Your task to perform on an android device: delete location history Image 0: 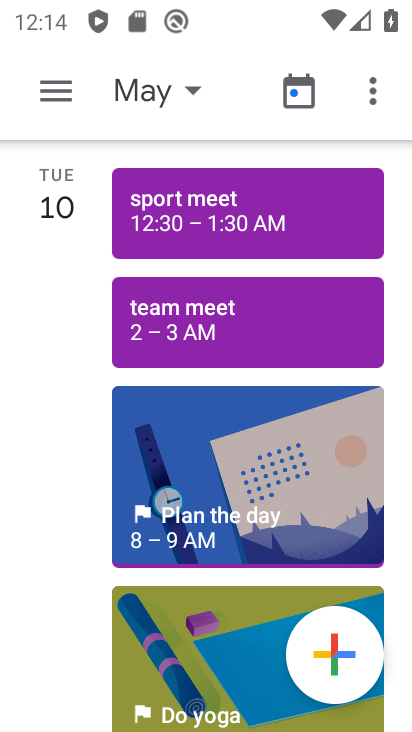
Step 0: press home button
Your task to perform on an android device: delete location history Image 1: 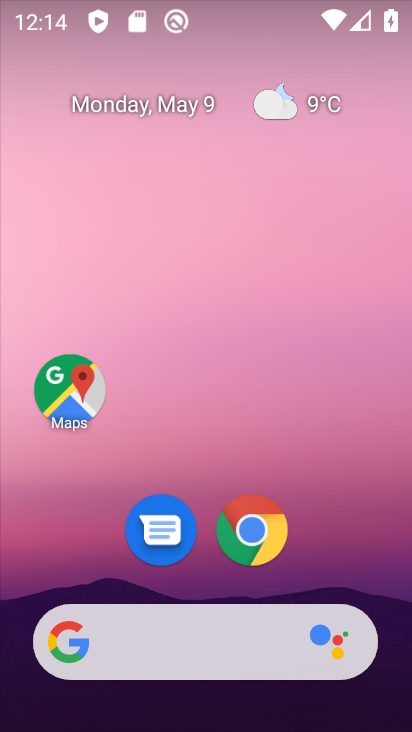
Step 1: drag from (344, 540) to (369, 194)
Your task to perform on an android device: delete location history Image 2: 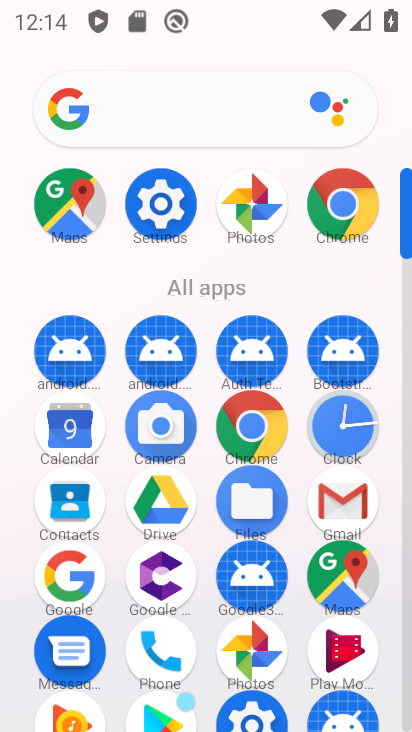
Step 2: click (350, 565)
Your task to perform on an android device: delete location history Image 3: 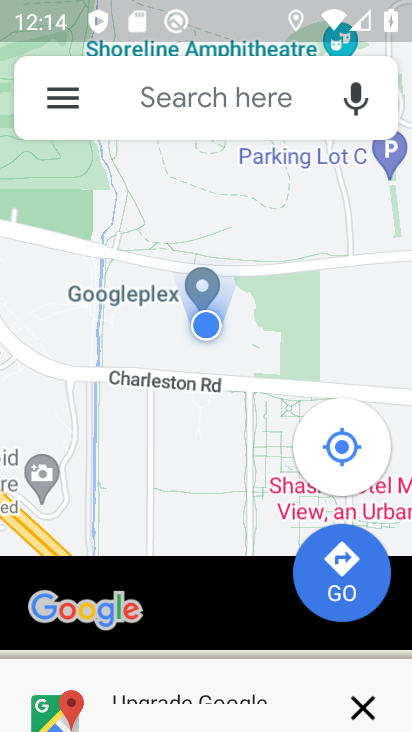
Step 3: click (61, 95)
Your task to perform on an android device: delete location history Image 4: 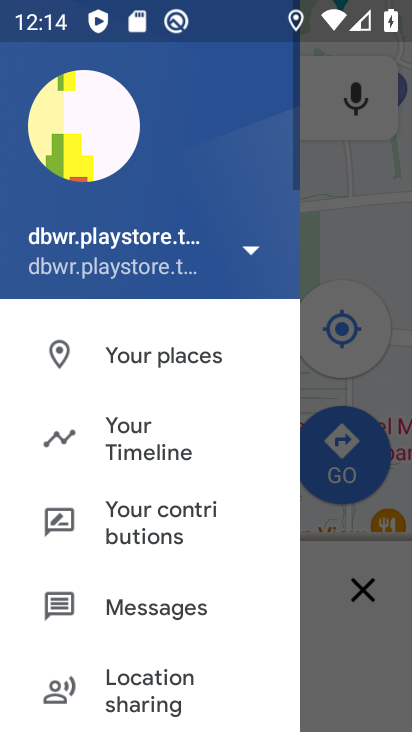
Step 4: click (125, 428)
Your task to perform on an android device: delete location history Image 5: 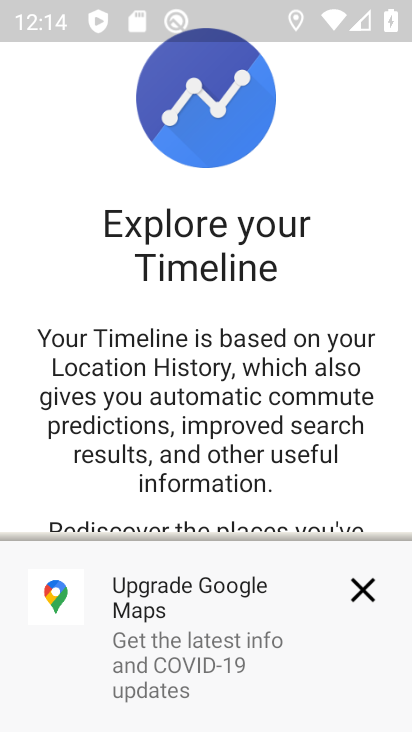
Step 5: click (354, 595)
Your task to perform on an android device: delete location history Image 6: 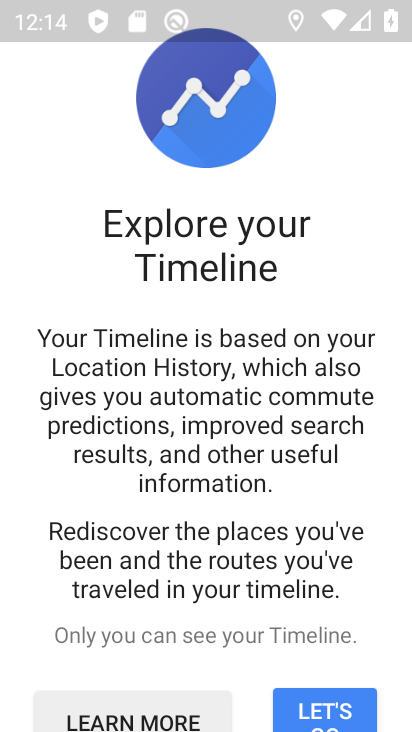
Step 6: drag from (345, 559) to (356, 158)
Your task to perform on an android device: delete location history Image 7: 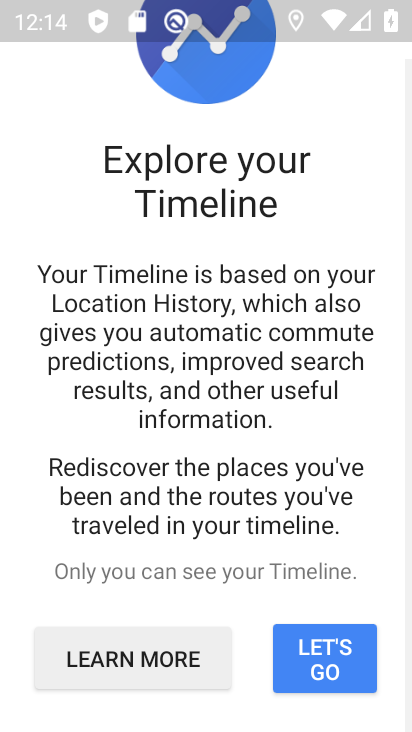
Step 7: drag from (252, 597) to (303, 149)
Your task to perform on an android device: delete location history Image 8: 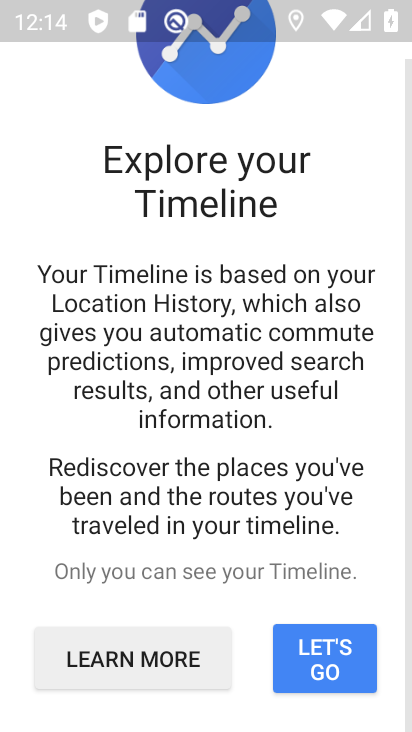
Step 8: click (326, 653)
Your task to perform on an android device: delete location history Image 9: 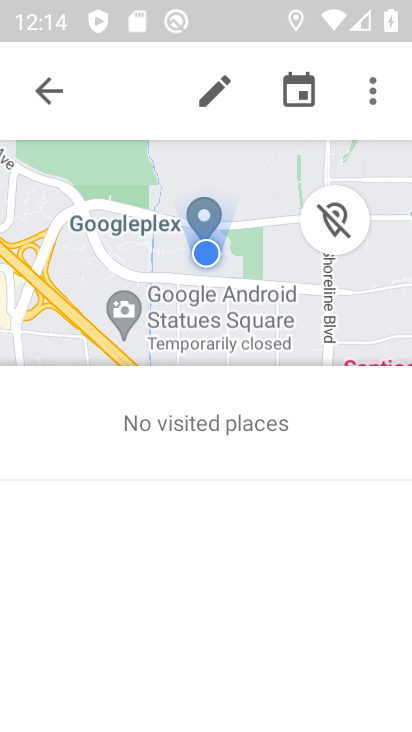
Step 9: click (353, 87)
Your task to perform on an android device: delete location history Image 10: 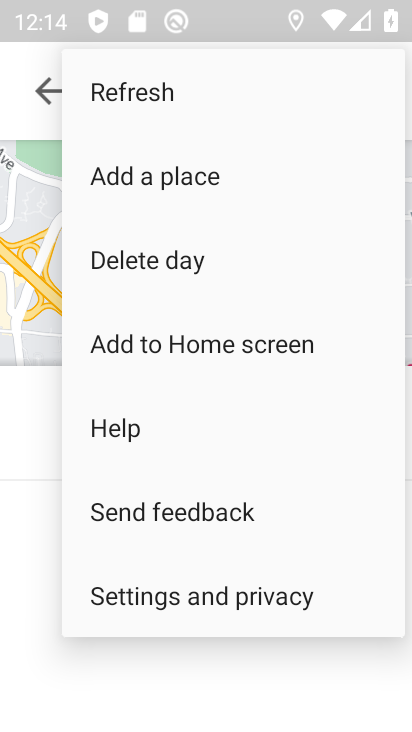
Step 10: click (198, 593)
Your task to perform on an android device: delete location history Image 11: 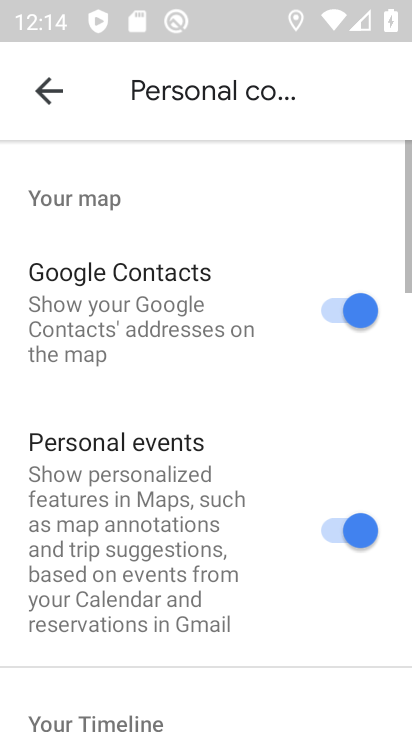
Step 11: drag from (207, 604) to (225, 92)
Your task to perform on an android device: delete location history Image 12: 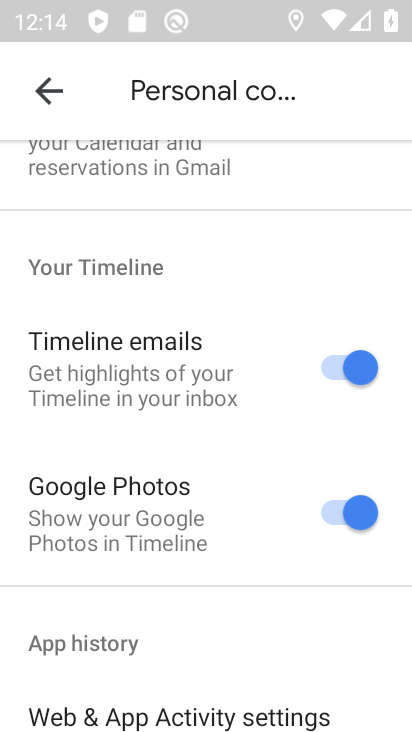
Step 12: drag from (153, 675) to (254, 87)
Your task to perform on an android device: delete location history Image 13: 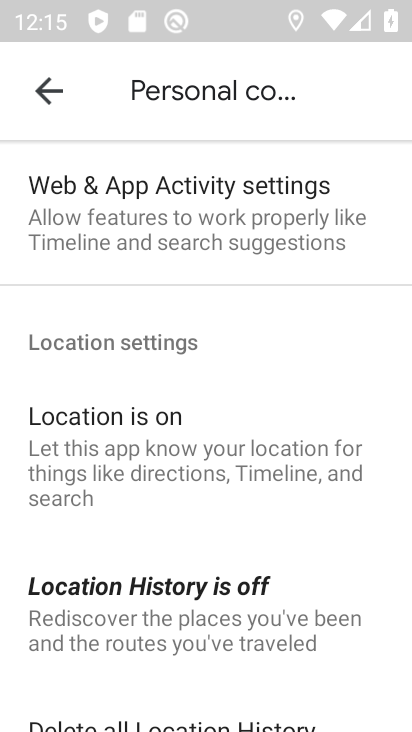
Step 13: drag from (216, 621) to (252, 294)
Your task to perform on an android device: delete location history Image 14: 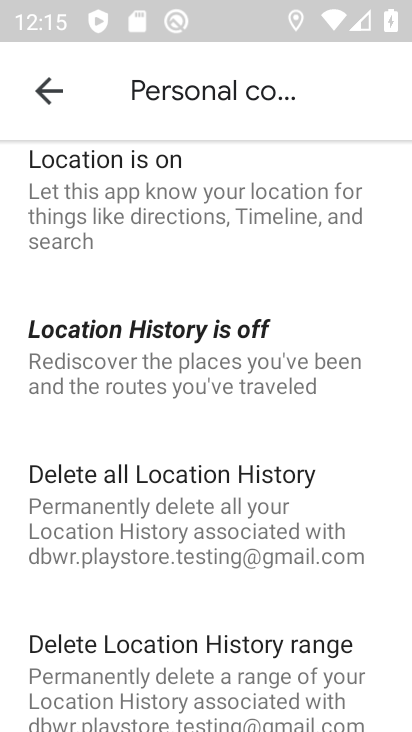
Step 14: click (191, 479)
Your task to perform on an android device: delete location history Image 15: 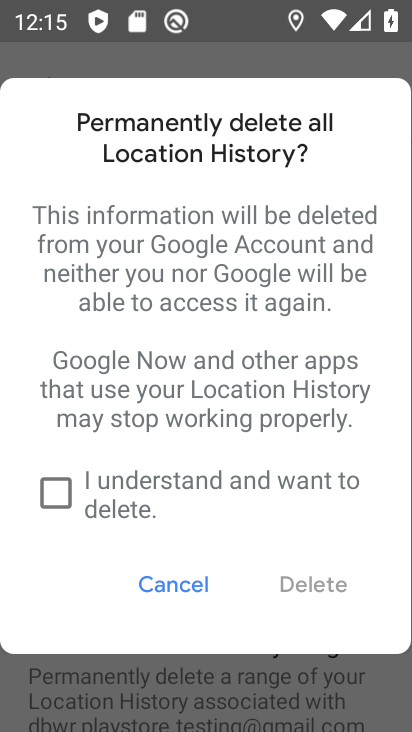
Step 15: click (61, 488)
Your task to perform on an android device: delete location history Image 16: 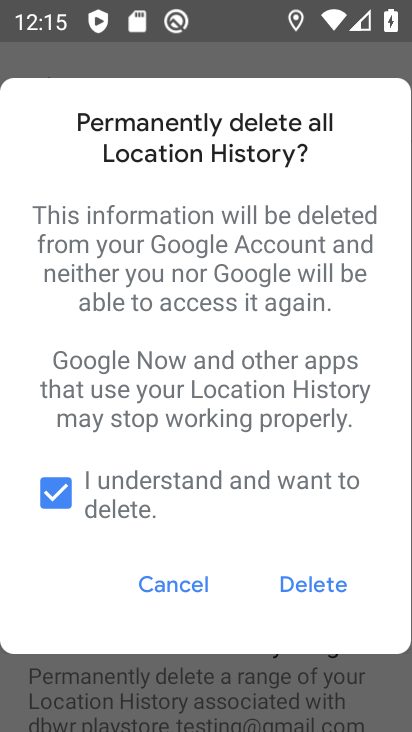
Step 16: click (305, 573)
Your task to perform on an android device: delete location history Image 17: 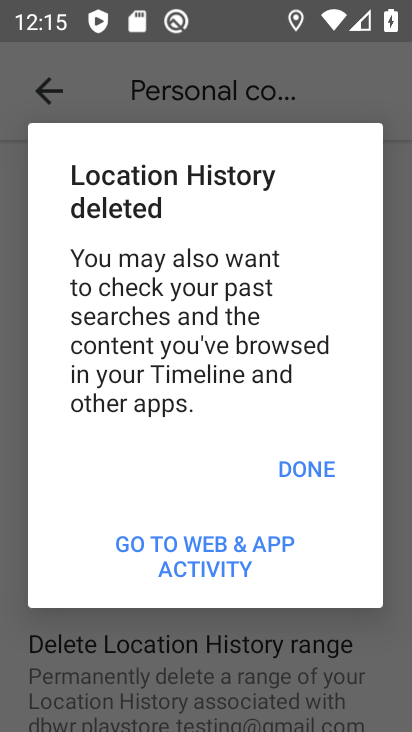
Step 17: click (332, 455)
Your task to perform on an android device: delete location history Image 18: 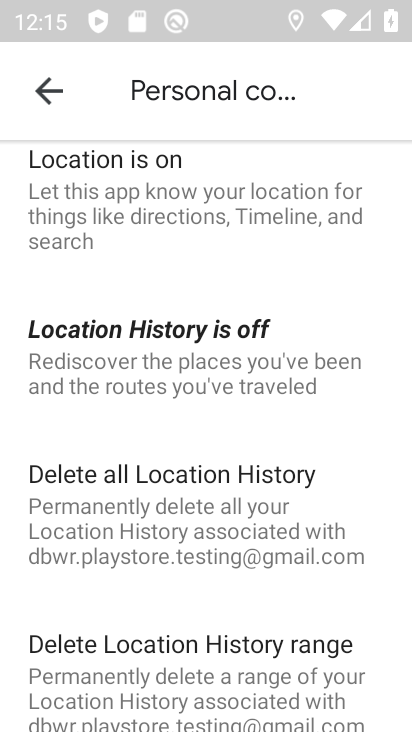
Step 18: task complete